Your task to perform on an android device: Show me the alarms in the clock app Image 0: 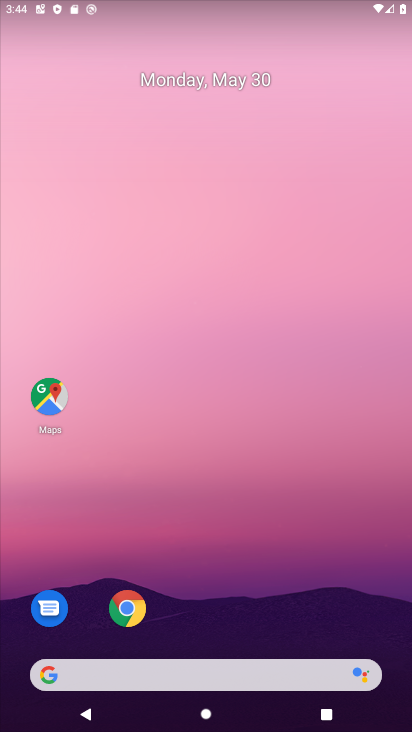
Step 0: drag from (223, 632) to (208, 254)
Your task to perform on an android device: Show me the alarms in the clock app Image 1: 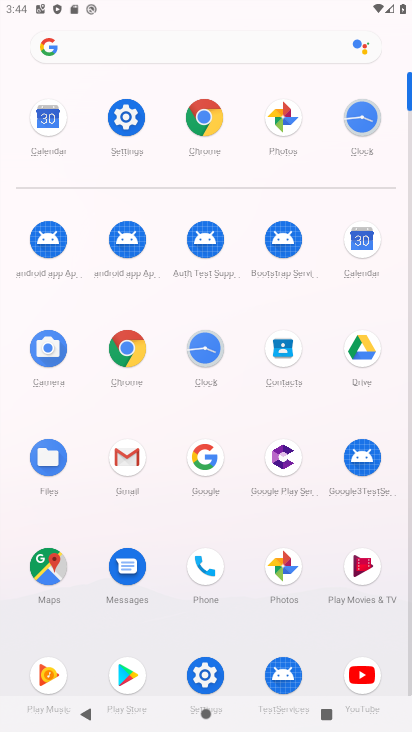
Step 1: click (202, 346)
Your task to perform on an android device: Show me the alarms in the clock app Image 2: 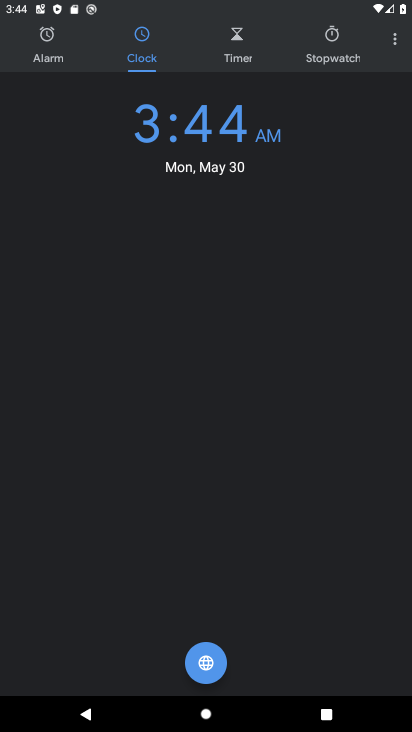
Step 2: click (34, 40)
Your task to perform on an android device: Show me the alarms in the clock app Image 3: 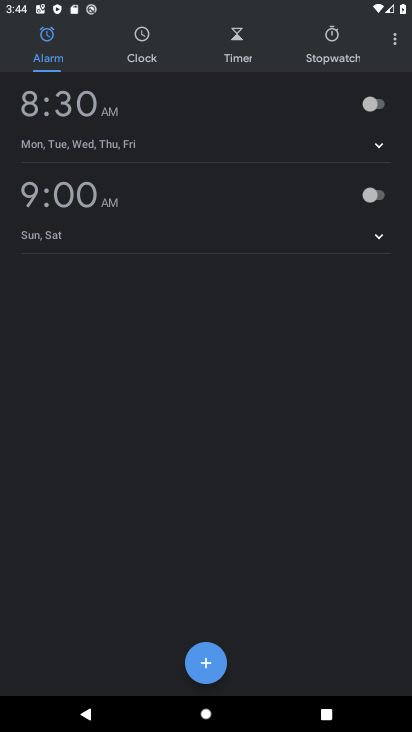
Step 3: task complete